Your task to perform on an android device: Is it going to rain this weekend? Image 0: 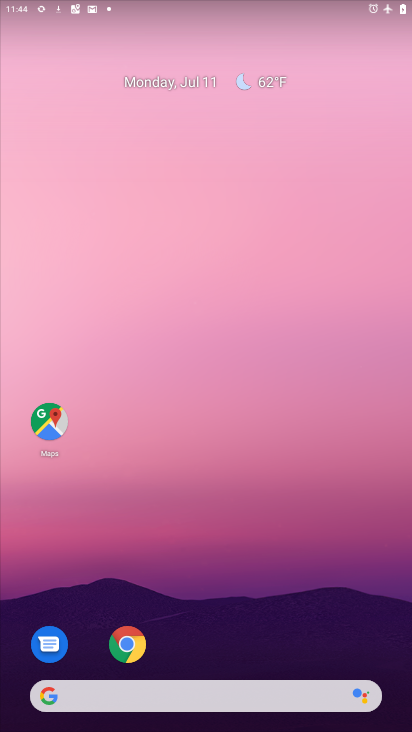
Step 0: click (197, 697)
Your task to perform on an android device: Is it going to rain this weekend? Image 1: 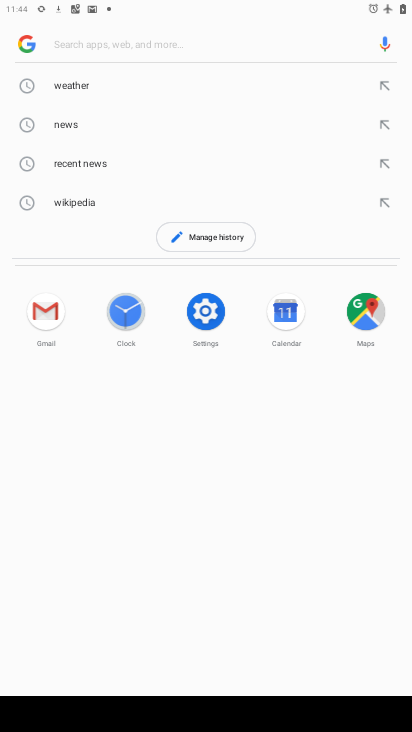
Step 1: click (83, 82)
Your task to perform on an android device: Is it going to rain this weekend? Image 2: 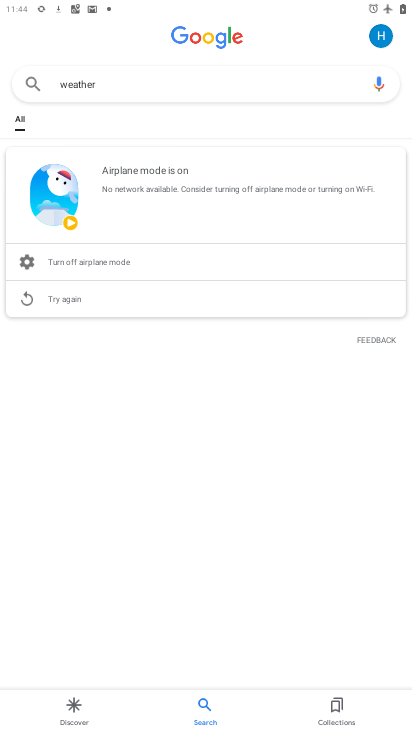
Step 2: task complete